Your task to perform on an android device: Open ESPN.com Image 0: 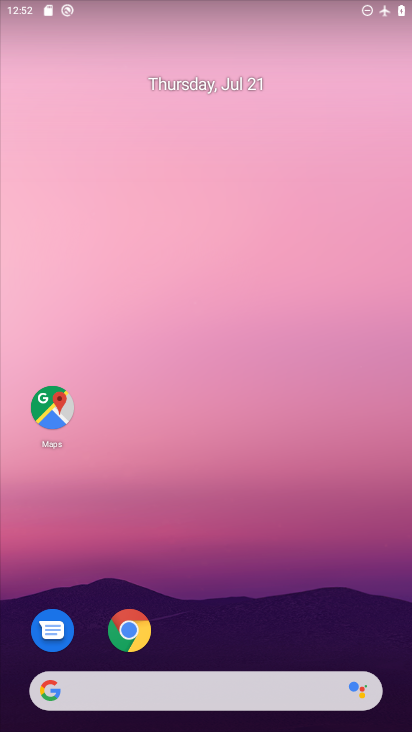
Step 0: click (129, 626)
Your task to perform on an android device: Open ESPN.com Image 1: 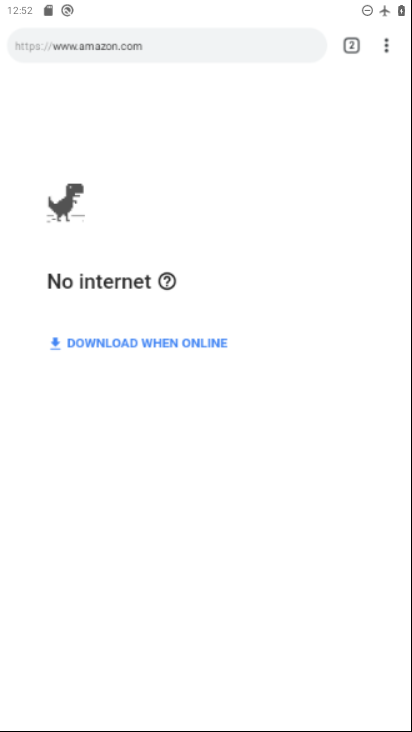
Step 1: click (129, 626)
Your task to perform on an android device: Open ESPN.com Image 2: 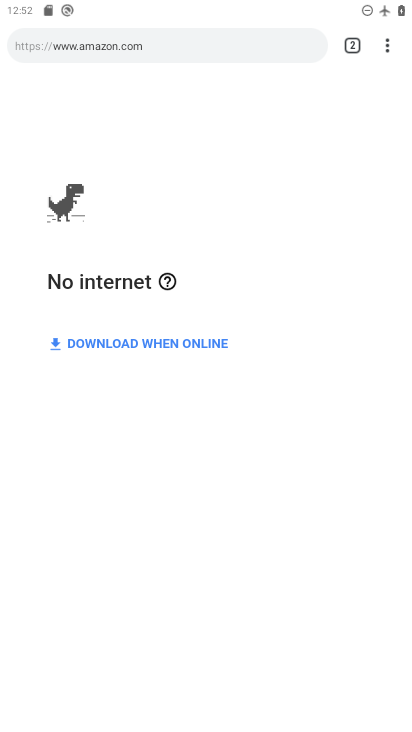
Step 2: task complete